Your task to perform on an android device: empty trash in google photos Image 0: 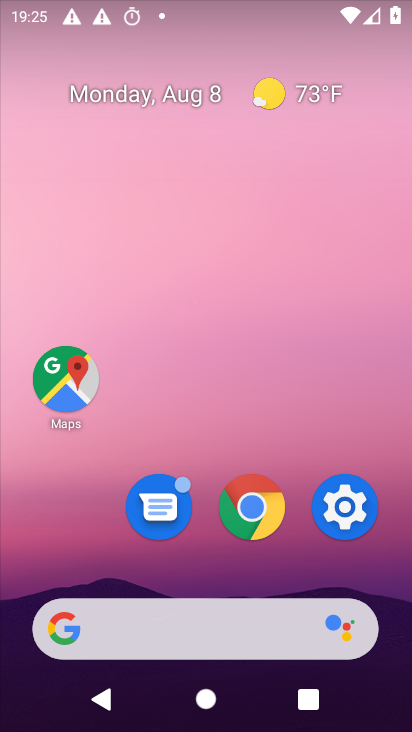
Step 0: drag from (244, 652) to (118, 182)
Your task to perform on an android device: empty trash in google photos Image 1: 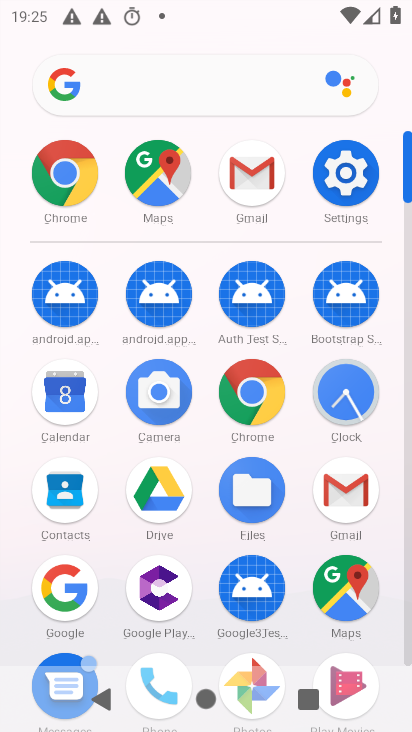
Step 1: click (239, 650)
Your task to perform on an android device: empty trash in google photos Image 2: 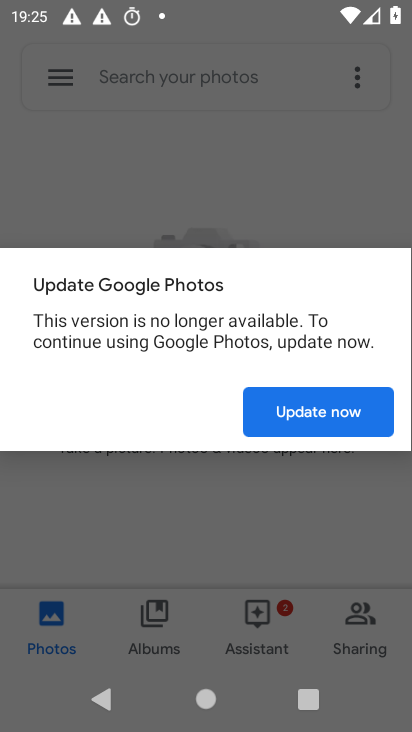
Step 2: click (312, 427)
Your task to perform on an android device: empty trash in google photos Image 3: 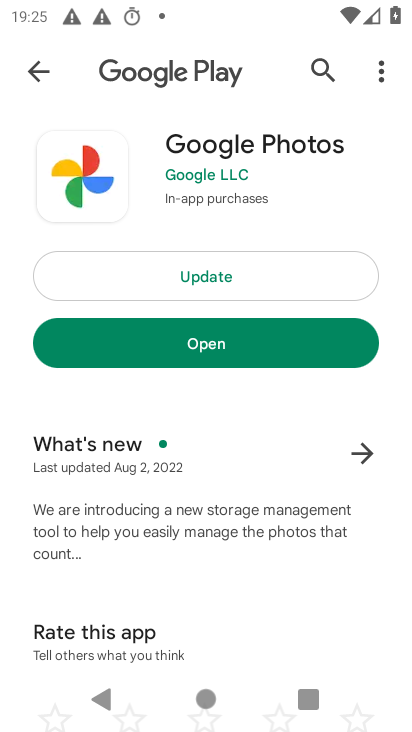
Step 3: click (201, 273)
Your task to perform on an android device: empty trash in google photos Image 4: 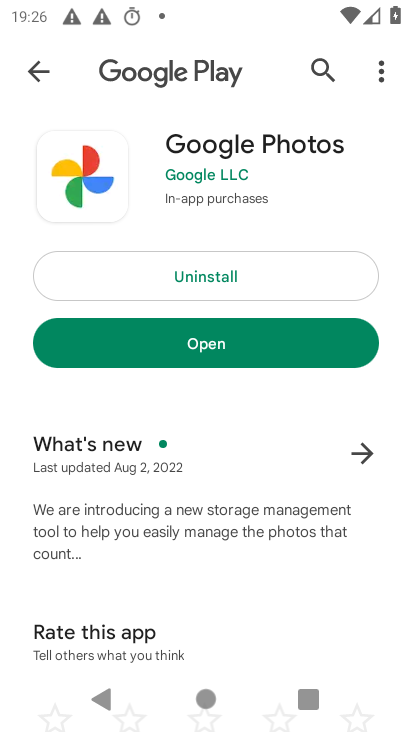
Step 4: click (234, 345)
Your task to perform on an android device: empty trash in google photos Image 5: 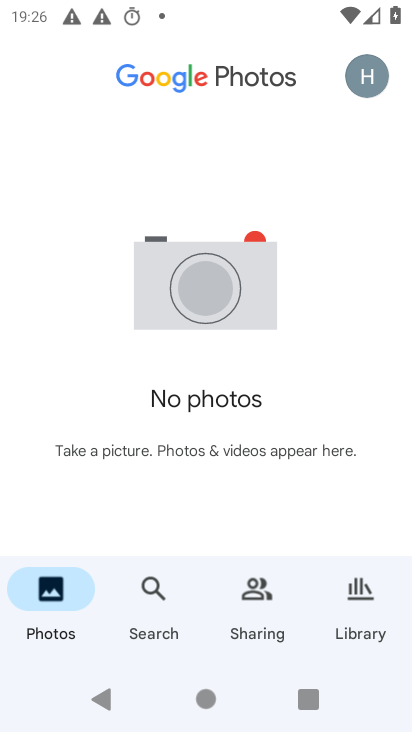
Step 5: click (142, 585)
Your task to perform on an android device: empty trash in google photos Image 6: 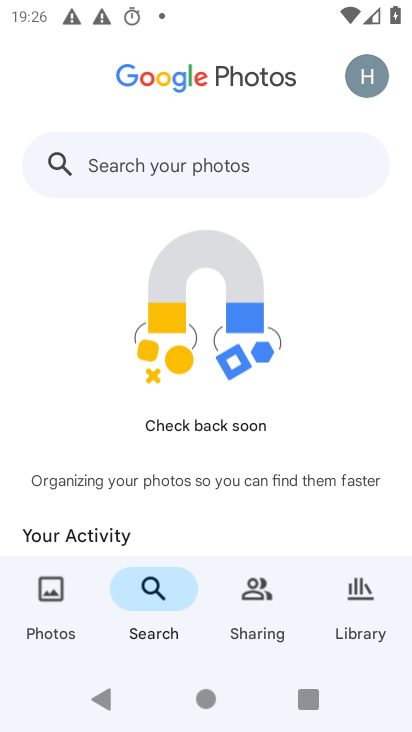
Step 6: click (119, 171)
Your task to perform on an android device: empty trash in google photos Image 7: 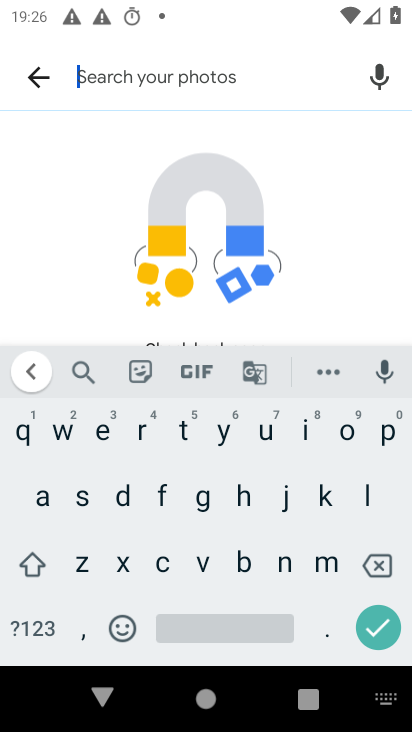
Step 7: click (179, 430)
Your task to perform on an android device: empty trash in google photos Image 8: 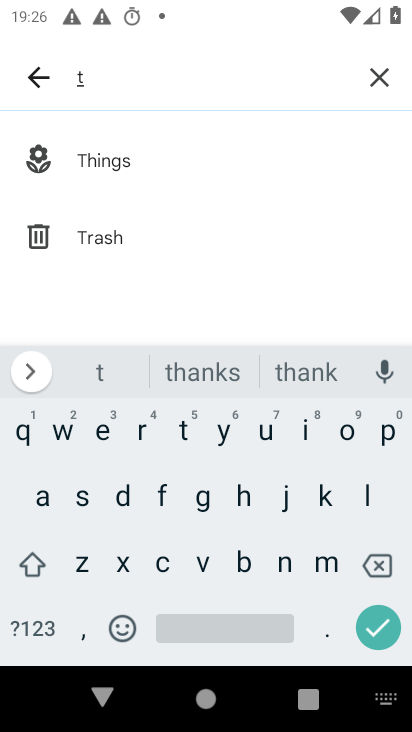
Step 8: click (96, 237)
Your task to perform on an android device: empty trash in google photos Image 9: 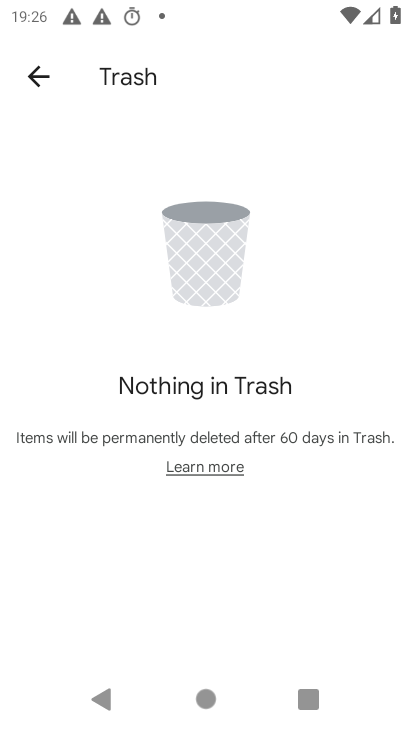
Step 9: task complete